Your task to perform on an android device: Open Google Maps and go to "Timeline" Image 0: 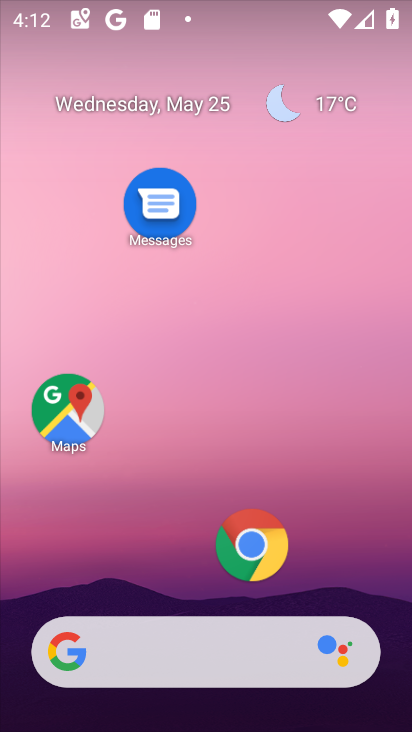
Step 0: click (47, 412)
Your task to perform on an android device: Open Google Maps and go to "Timeline" Image 1: 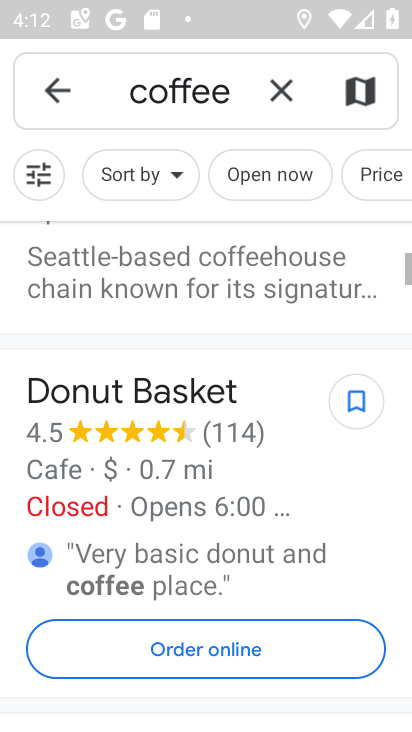
Step 1: click (48, 100)
Your task to perform on an android device: Open Google Maps and go to "Timeline" Image 2: 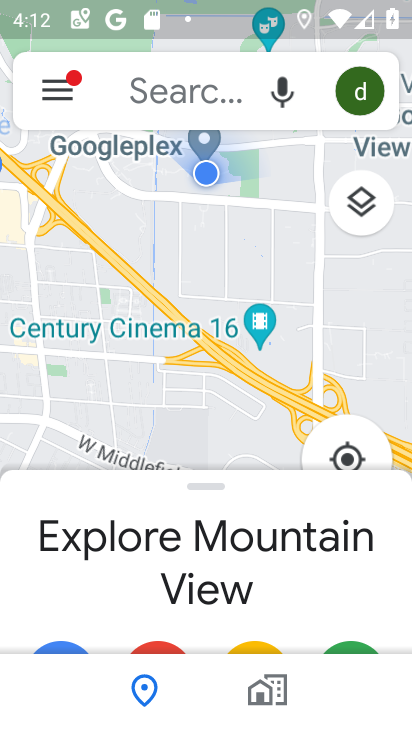
Step 2: click (53, 97)
Your task to perform on an android device: Open Google Maps and go to "Timeline" Image 3: 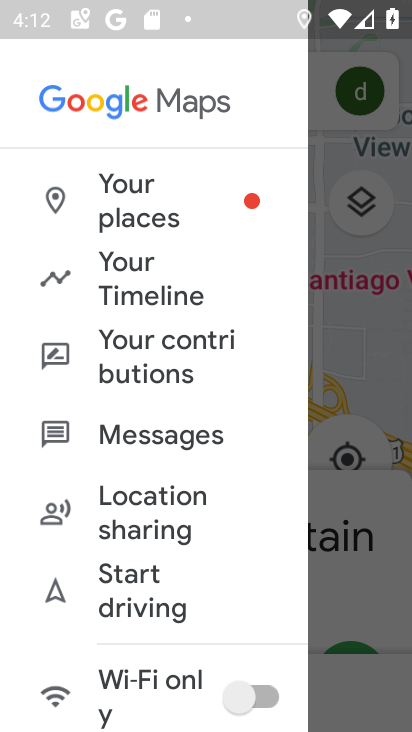
Step 3: click (121, 272)
Your task to perform on an android device: Open Google Maps and go to "Timeline" Image 4: 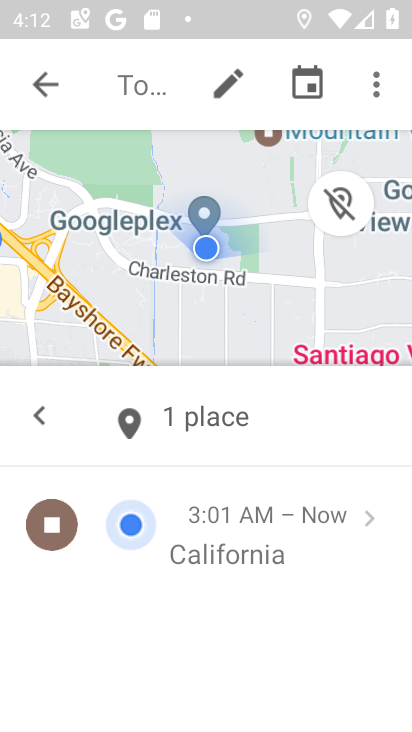
Step 4: task complete